Your task to perform on an android device: Go to Google Image 0: 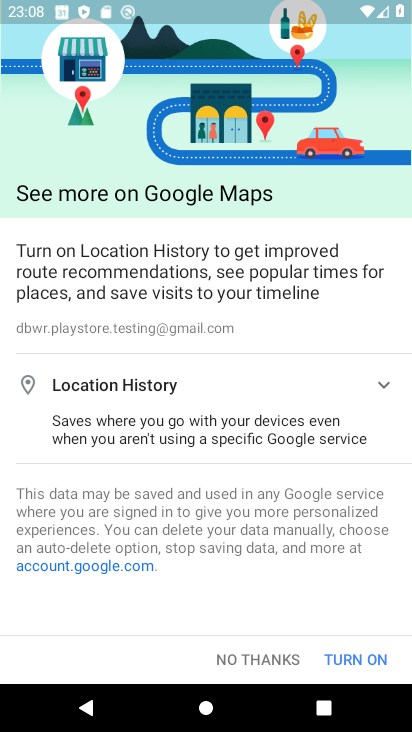
Step 0: press back button
Your task to perform on an android device: Go to Google Image 1: 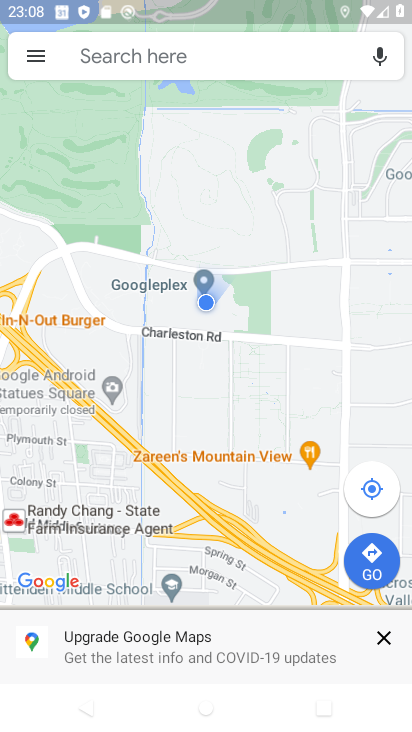
Step 1: press back button
Your task to perform on an android device: Go to Google Image 2: 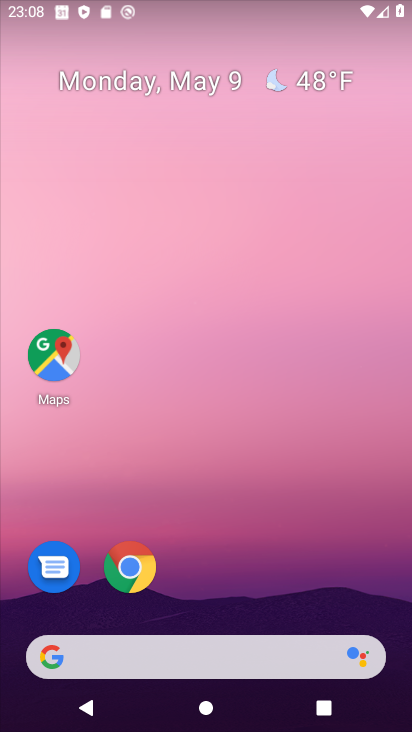
Step 2: drag from (217, 580) to (210, 196)
Your task to perform on an android device: Go to Google Image 3: 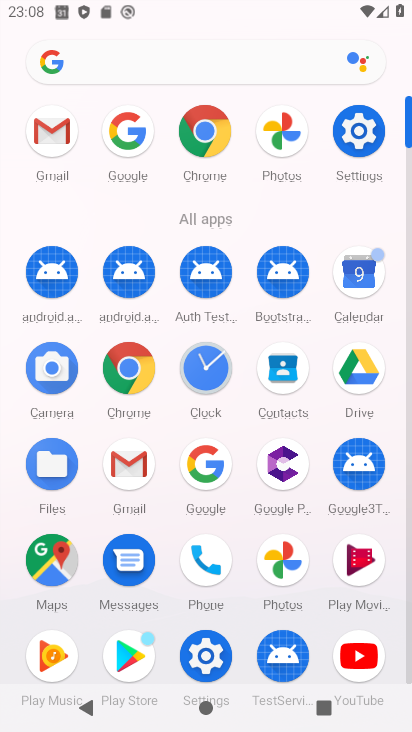
Step 3: click (121, 128)
Your task to perform on an android device: Go to Google Image 4: 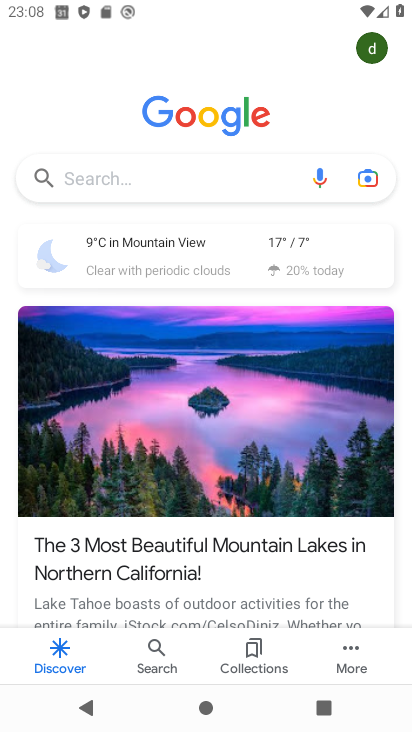
Step 4: task complete